Your task to perform on an android device: search for starred emails in the gmail app Image 0: 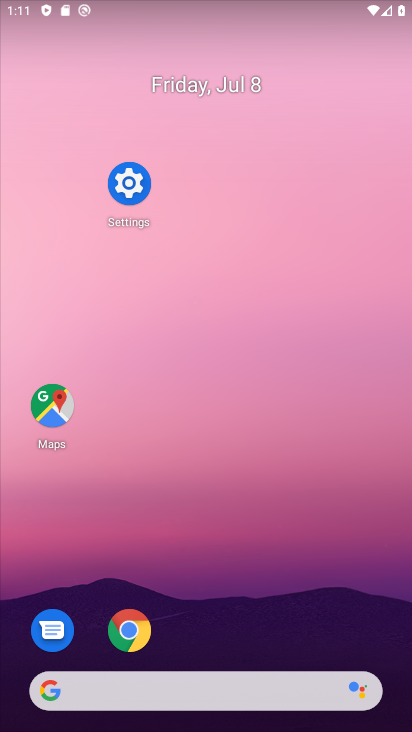
Step 0: drag from (249, 617) to (318, 186)
Your task to perform on an android device: search for starred emails in the gmail app Image 1: 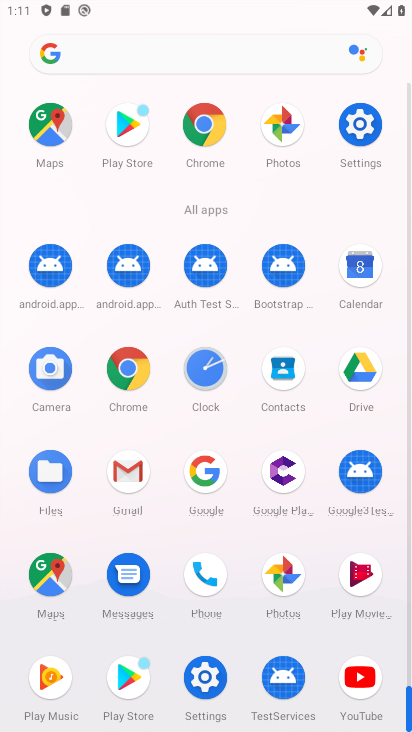
Step 1: click (133, 487)
Your task to perform on an android device: search for starred emails in the gmail app Image 2: 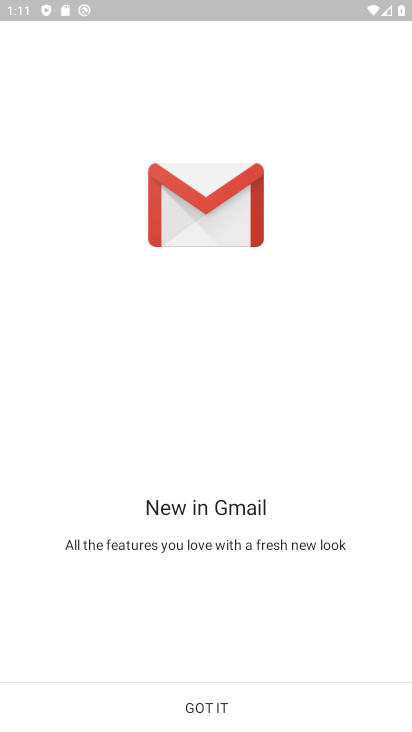
Step 2: click (222, 708)
Your task to perform on an android device: search for starred emails in the gmail app Image 3: 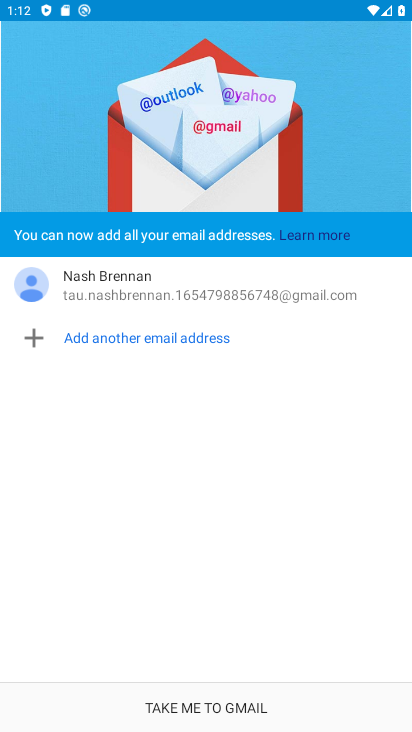
Step 3: click (222, 708)
Your task to perform on an android device: search for starred emails in the gmail app Image 4: 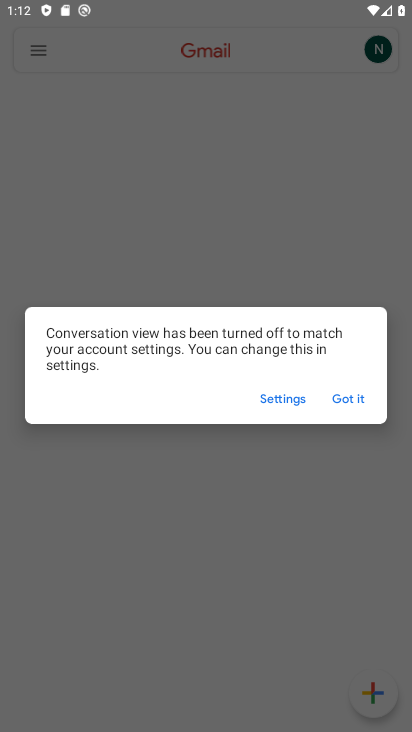
Step 4: click (360, 403)
Your task to perform on an android device: search for starred emails in the gmail app Image 5: 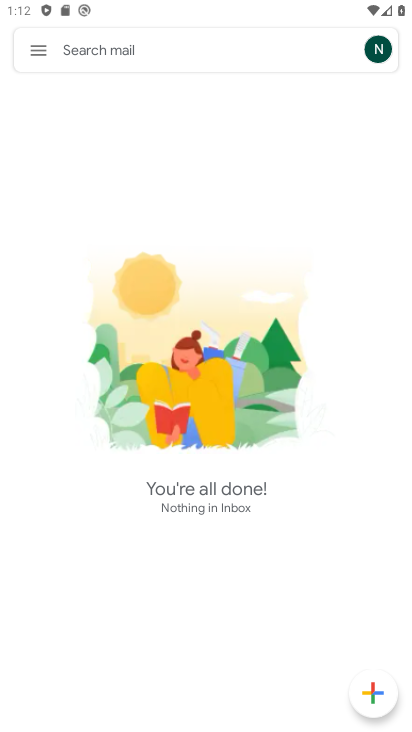
Step 5: task complete